Your task to perform on an android device: Set the phone to "Do not disturb". Image 0: 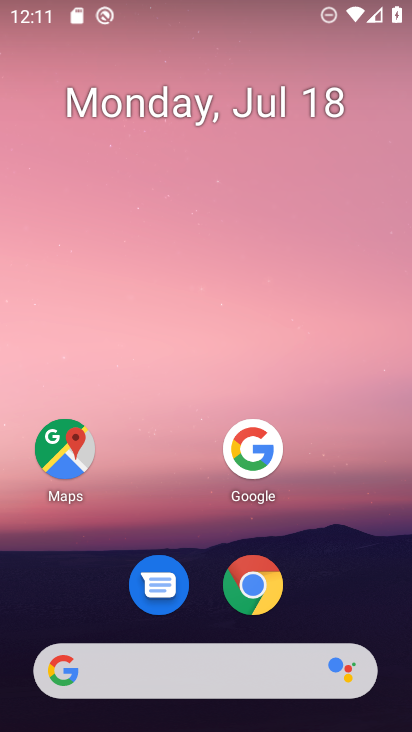
Step 0: press home button
Your task to perform on an android device: Set the phone to "Do not disturb". Image 1: 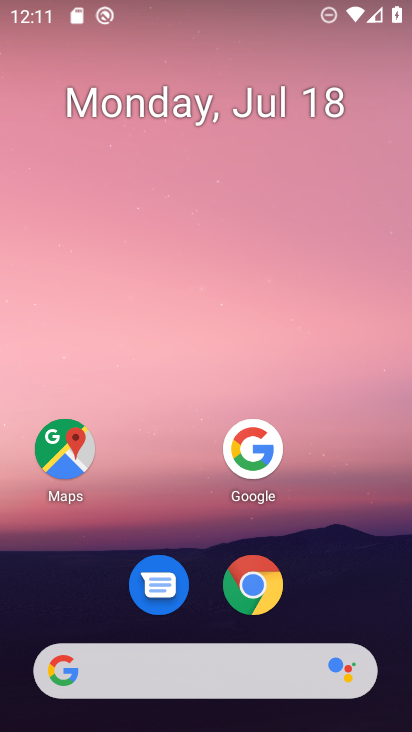
Step 1: drag from (262, 678) to (265, 14)
Your task to perform on an android device: Set the phone to "Do not disturb". Image 2: 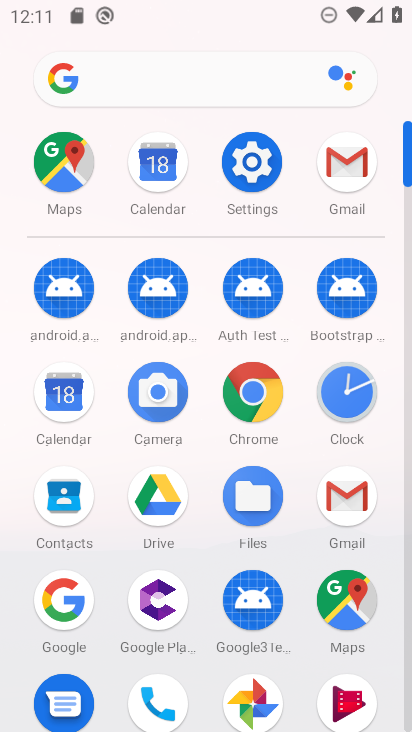
Step 2: click (247, 182)
Your task to perform on an android device: Set the phone to "Do not disturb". Image 3: 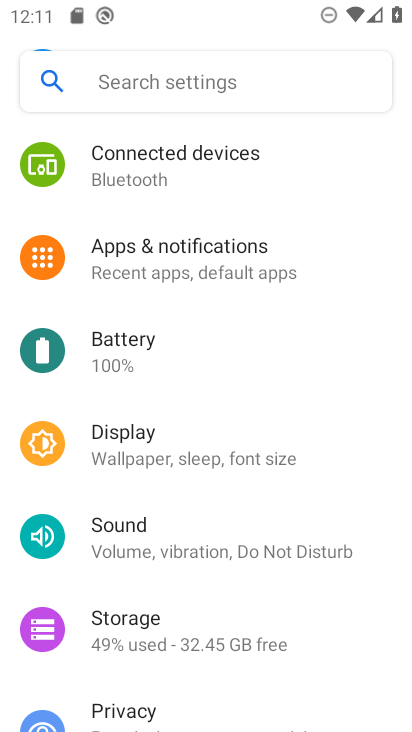
Step 3: click (224, 535)
Your task to perform on an android device: Set the phone to "Do not disturb". Image 4: 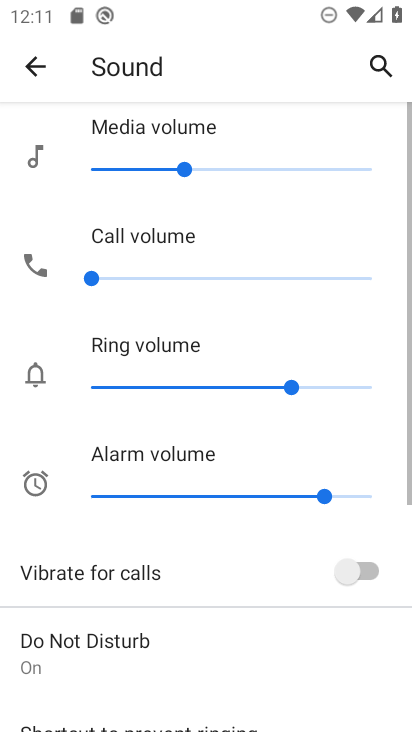
Step 4: drag from (111, 633) to (148, 278)
Your task to perform on an android device: Set the phone to "Do not disturb". Image 5: 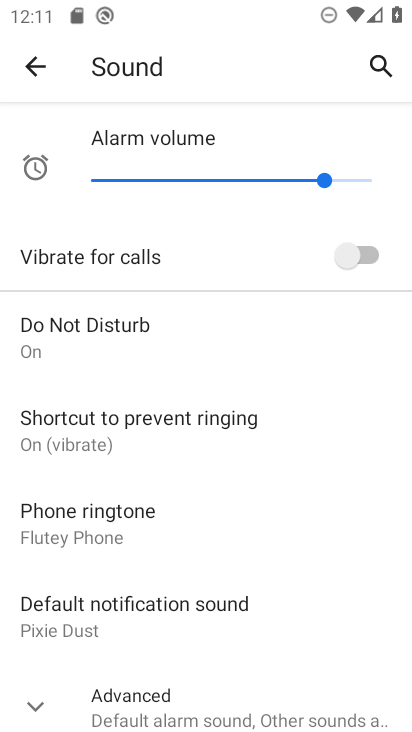
Step 5: click (51, 346)
Your task to perform on an android device: Set the phone to "Do not disturb". Image 6: 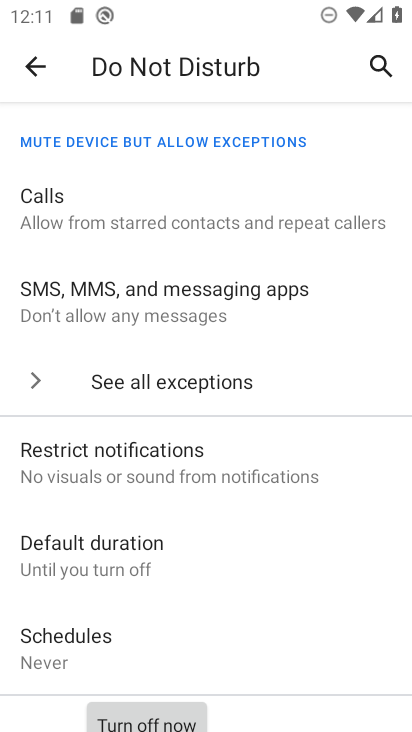
Step 6: task complete